Your task to perform on an android device: Open settings on Google Maps Image 0: 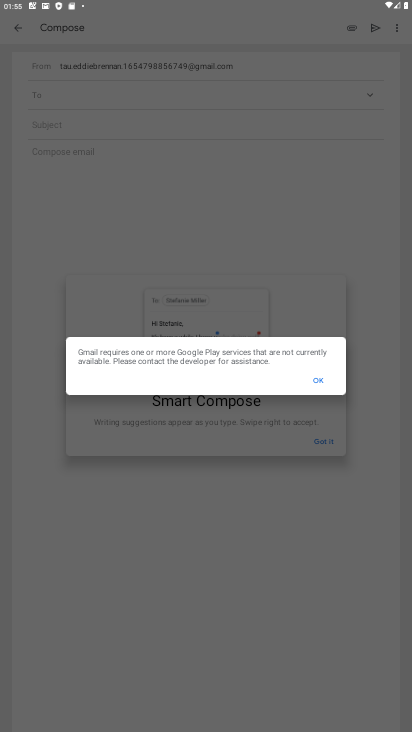
Step 0: press home button
Your task to perform on an android device: Open settings on Google Maps Image 1: 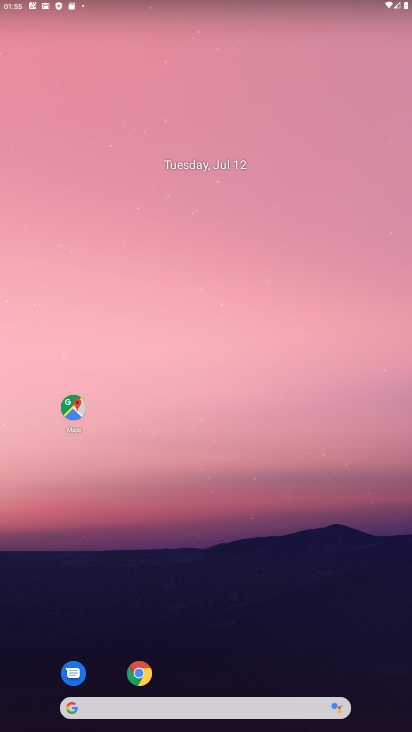
Step 1: click (72, 412)
Your task to perform on an android device: Open settings on Google Maps Image 2: 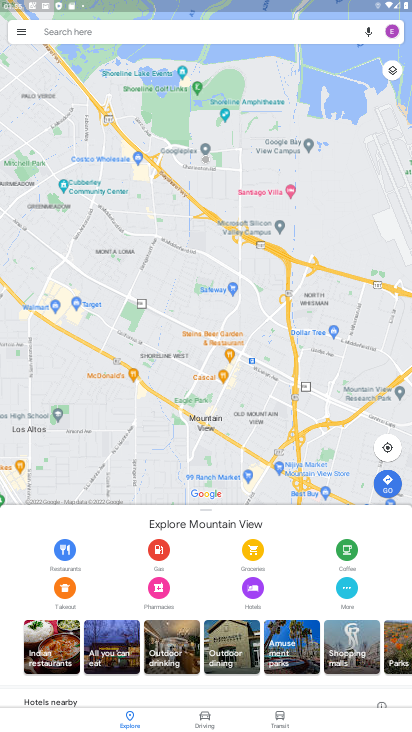
Step 2: click (15, 29)
Your task to perform on an android device: Open settings on Google Maps Image 3: 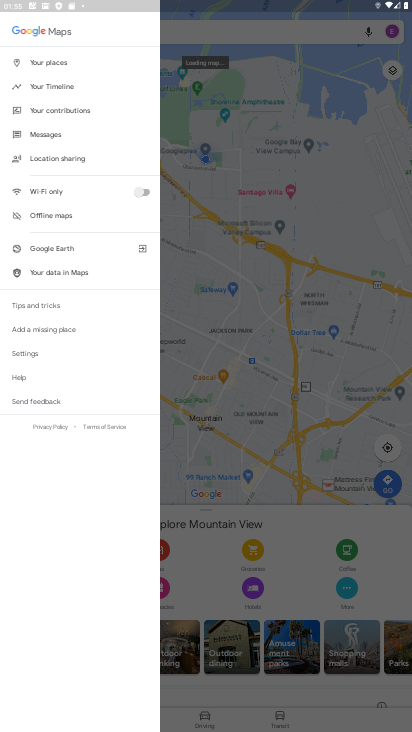
Step 3: click (29, 347)
Your task to perform on an android device: Open settings on Google Maps Image 4: 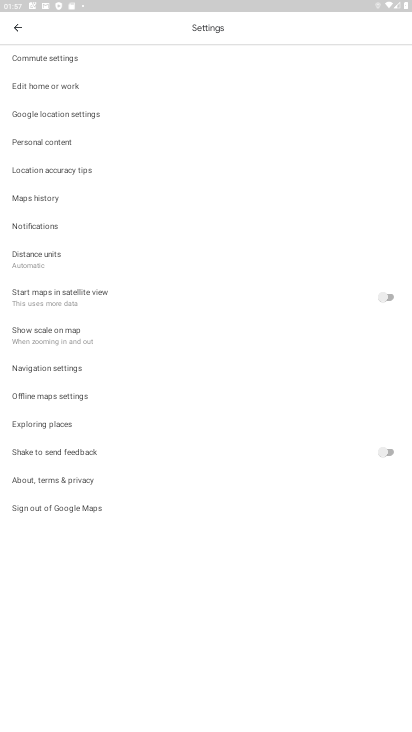
Step 4: task complete